Your task to perform on an android device: open sync settings in chrome Image 0: 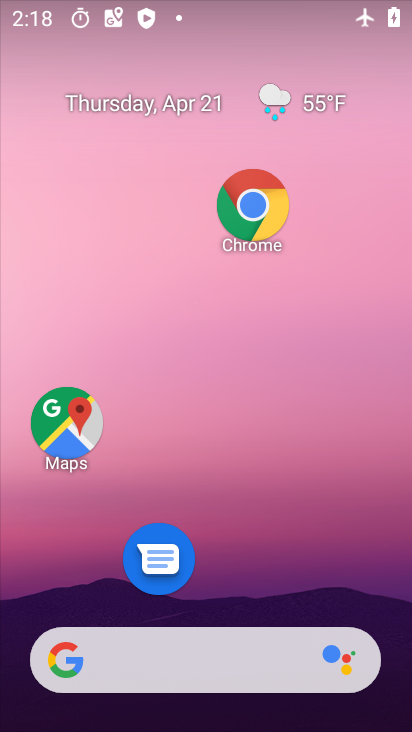
Step 0: click (268, 219)
Your task to perform on an android device: open sync settings in chrome Image 1: 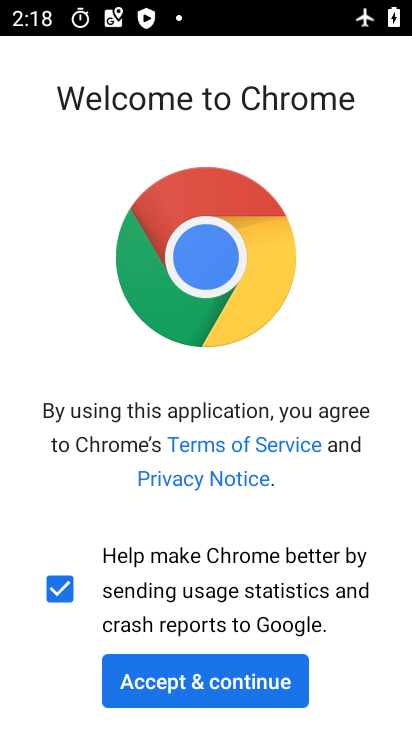
Step 1: click (171, 673)
Your task to perform on an android device: open sync settings in chrome Image 2: 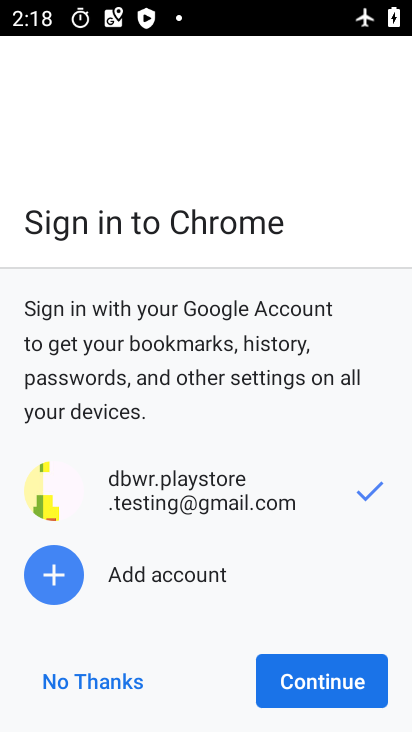
Step 2: click (307, 677)
Your task to perform on an android device: open sync settings in chrome Image 3: 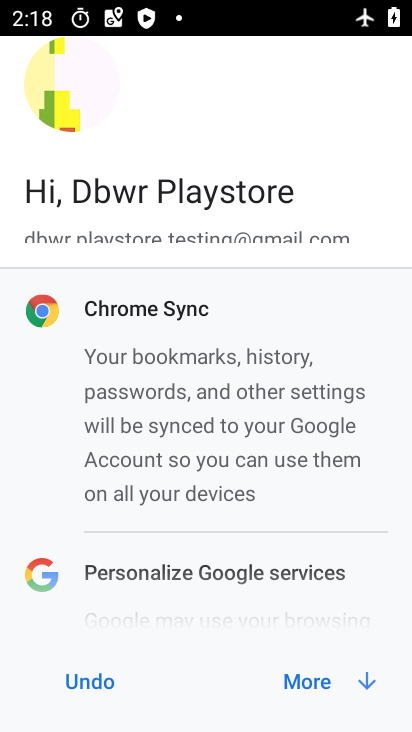
Step 3: click (309, 679)
Your task to perform on an android device: open sync settings in chrome Image 4: 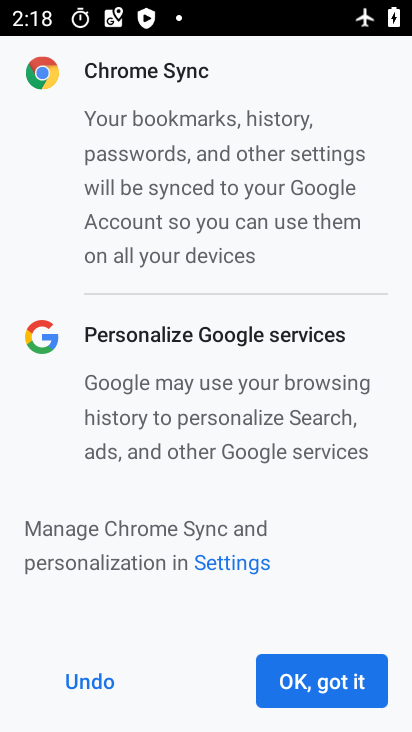
Step 4: click (324, 678)
Your task to perform on an android device: open sync settings in chrome Image 5: 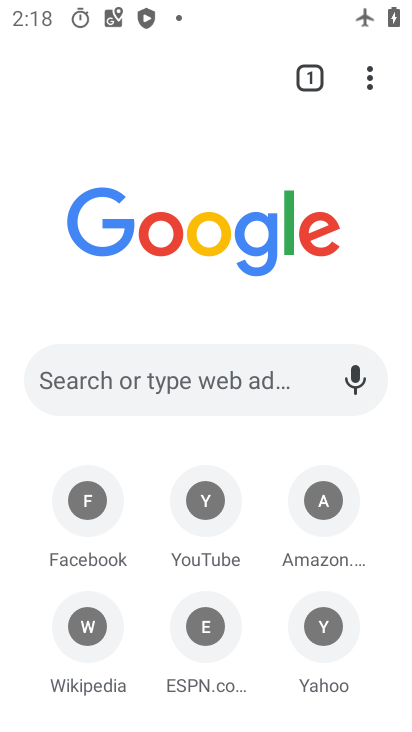
Step 5: drag from (370, 85) to (100, 627)
Your task to perform on an android device: open sync settings in chrome Image 6: 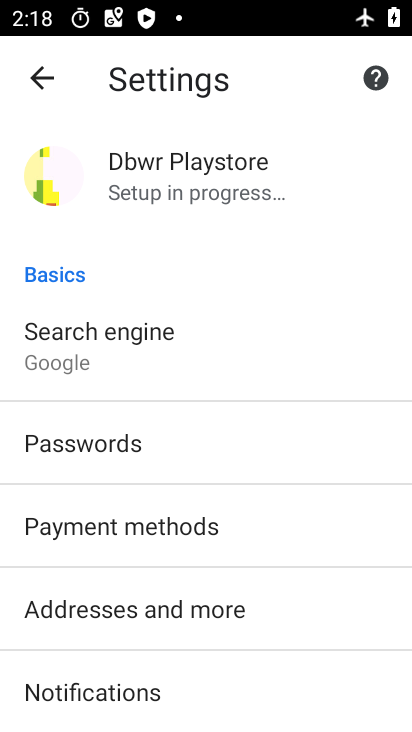
Step 6: click (148, 193)
Your task to perform on an android device: open sync settings in chrome Image 7: 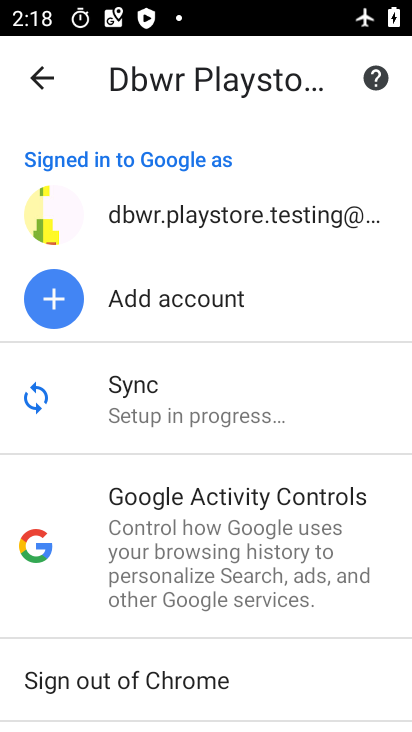
Step 7: drag from (200, 555) to (200, 464)
Your task to perform on an android device: open sync settings in chrome Image 8: 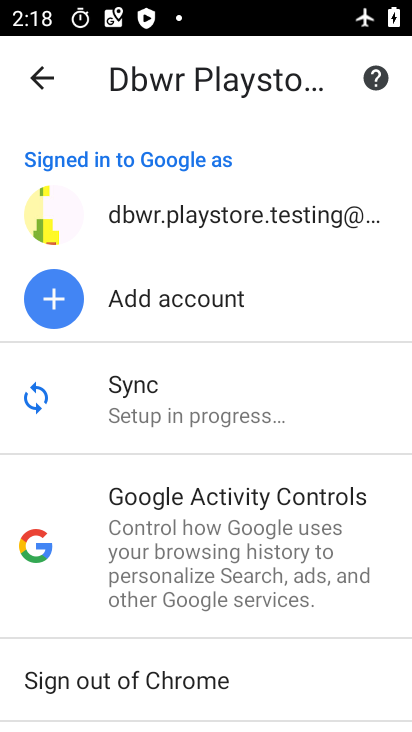
Step 8: click (191, 402)
Your task to perform on an android device: open sync settings in chrome Image 9: 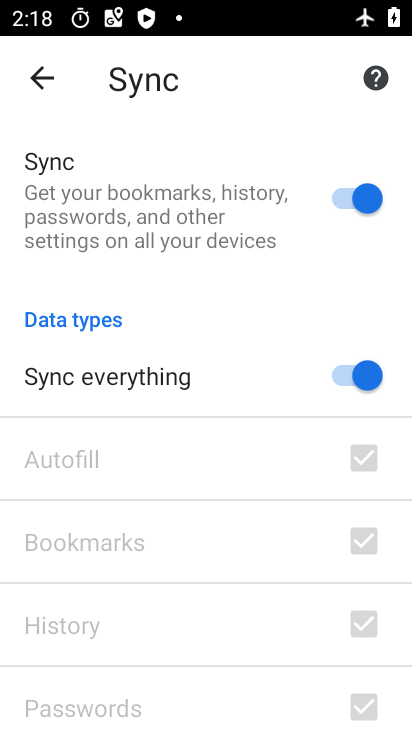
Step 9: task complete